Your task to perform on an android device: Open wifi settings Image 0: 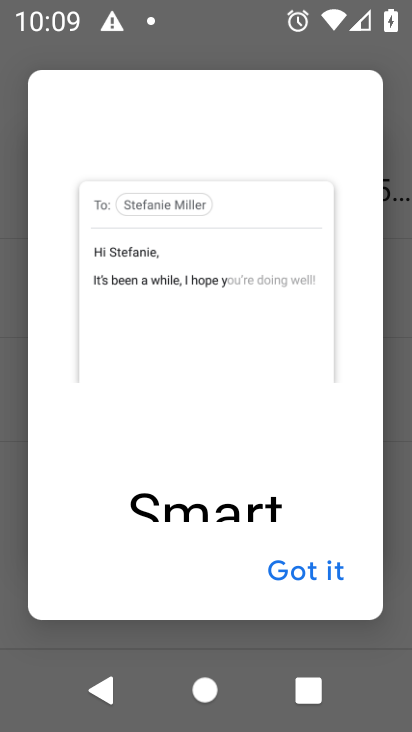
Step 0: press home button
Your task to perform on an android device: Open wifi settings Image 1: 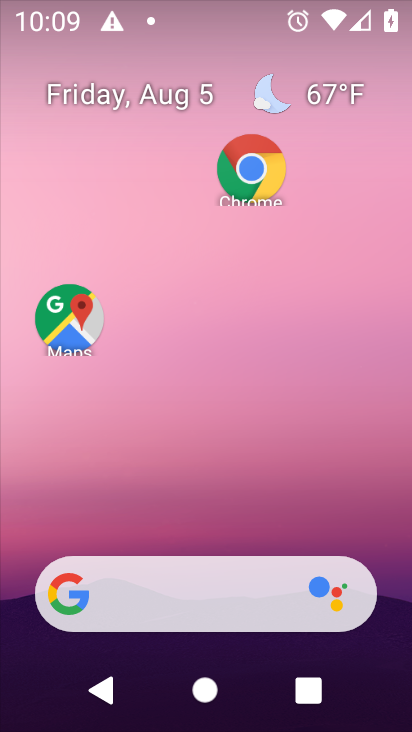
Step 1: drag from (183, 528) to (172, 113)
Your task to perform on an android device: Open wifi settings Image 2: 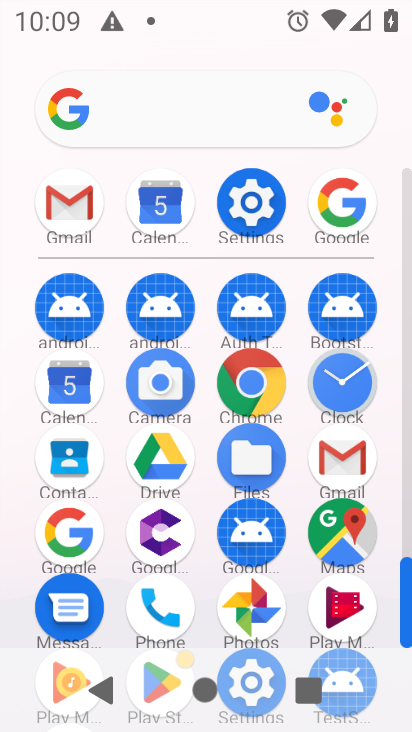
Step 2: click (271, 210)
Your task to perform on an android device: Open wifi settings Image 3: 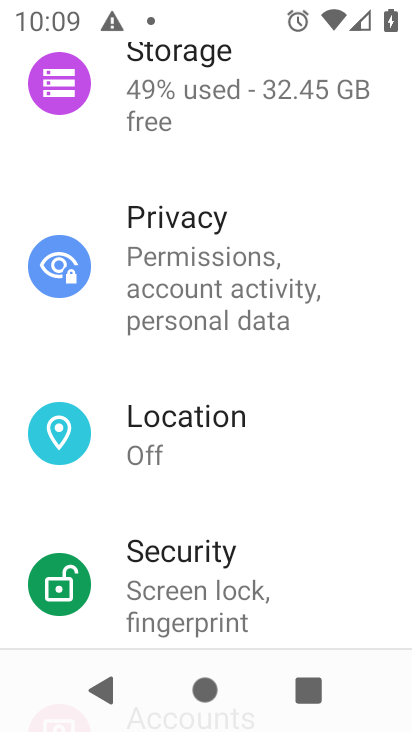
Step 3: drag from (247, 196) to (254, 536)
Your task to perform on an android device: Open wifi settings Image 4: 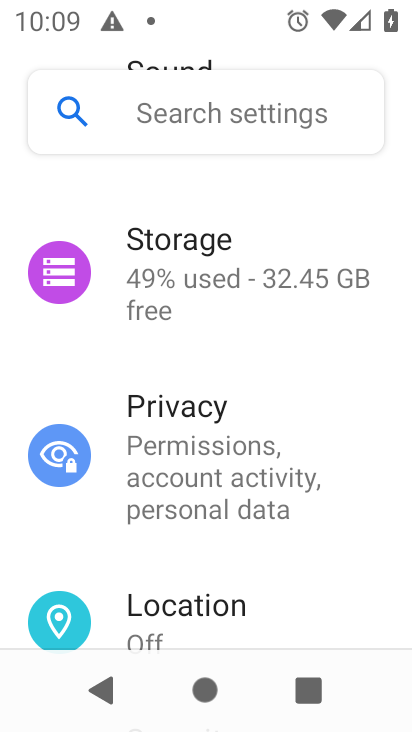
Step 4: drag from (164, 225) to (168, 622)
Your task to perform on an android device: Open wifi settings Image 5: 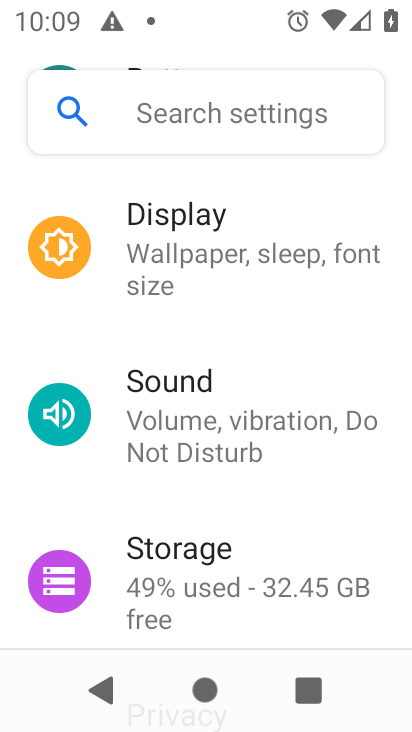
Step 5: drag from (193, 223) to (198, 587)
Your task to perform on an android device: Open wifi settings Image 6: 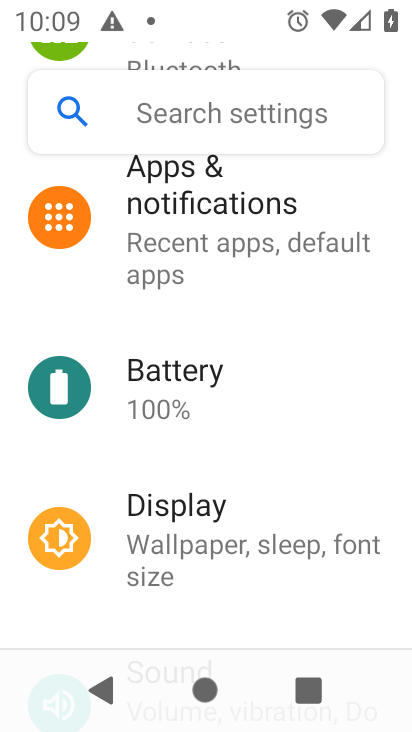
Step 6: drag from (185, 213) to (185, 646)
Your task to perform on an android device: Open wifi settings Image 7: 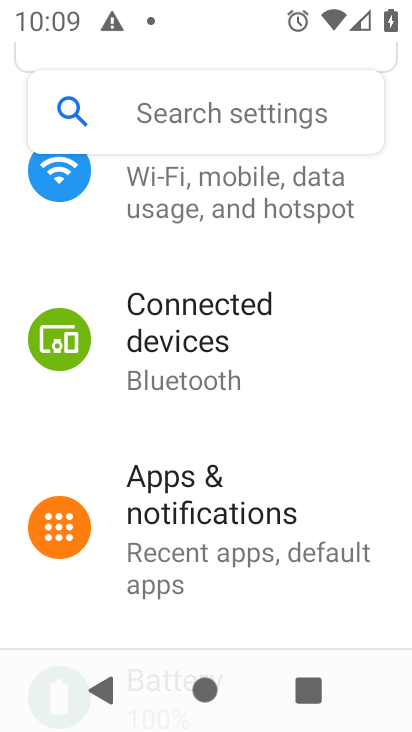
Step 7: drag from (189, 240) to (192, 608)
Your task to perform on an android device: Open wifi settings Image 8: 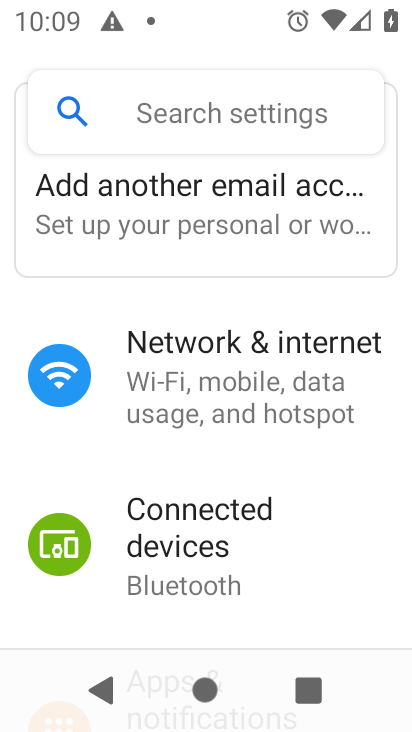
Step 8: click (194, 376)
Your task to perform on an android device: Open wifi settings Image 9: 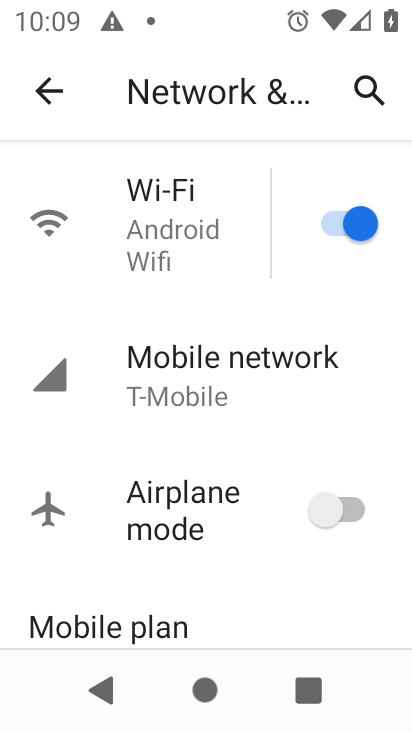
Step 9: click (168, 209)
Your task to perform on an android device: Open wifi settings Image 10: 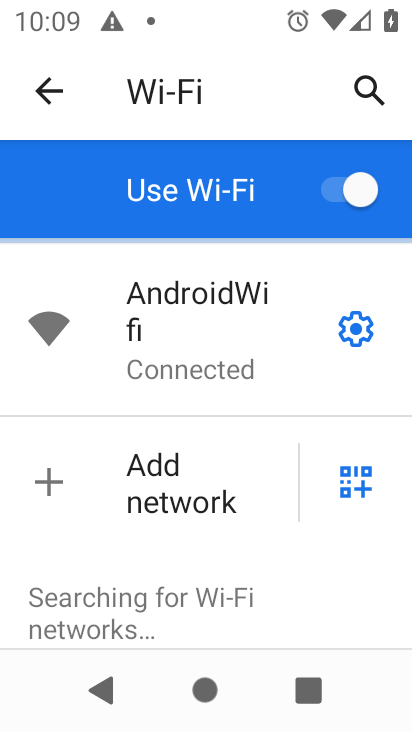
Step 10: task complete